Your task to perform on an android device: change alarm snooze length Image 0: 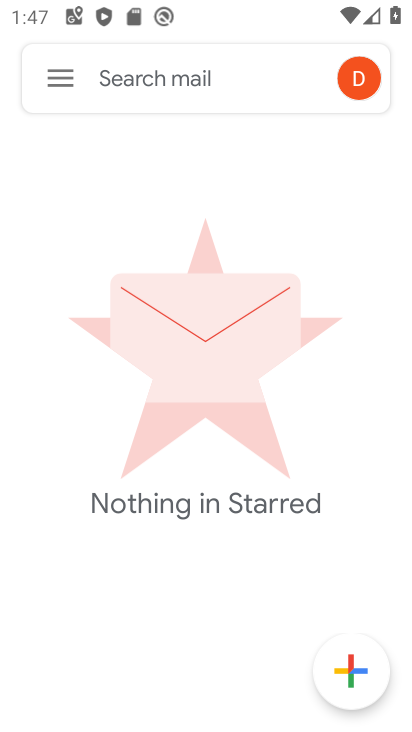
Step 0: press home button
Your task to perform on an android device: change alarm snooze length Image 1: 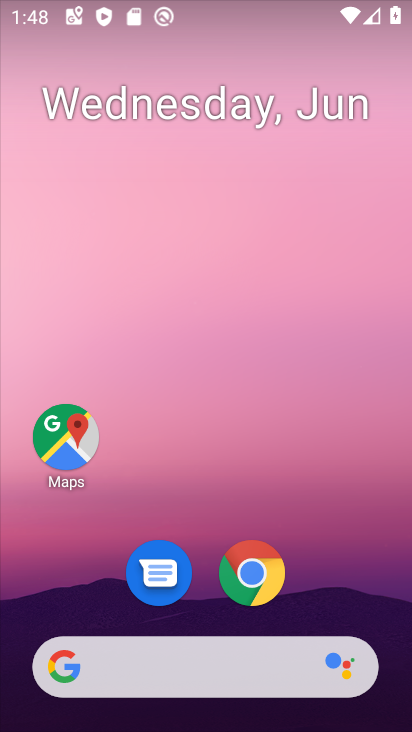
Step 1: drag from (375, 591) to (341, 187)
Your task to perform on an android device: change alarm snooze length Image 2: 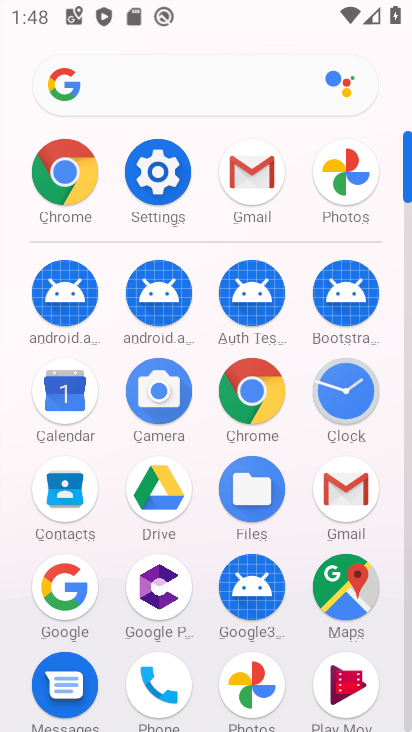
Step 2: click (354, 394)
Your task to perform on an android device: change alarm snooze length Image 3: 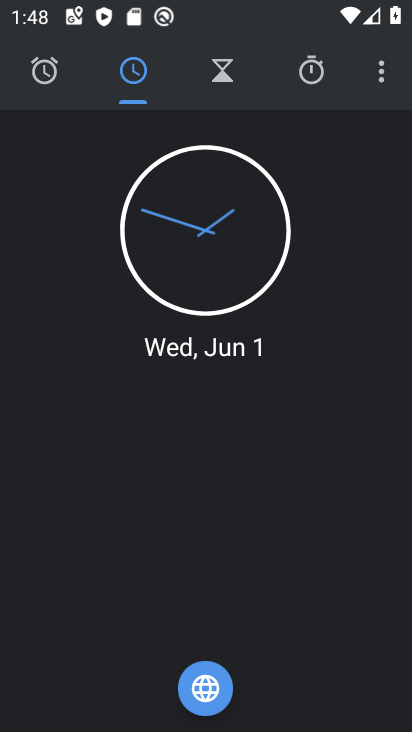
Step 3: click (393, 91)
Your task to perform on an android device: change alarm snooze length Image 4: 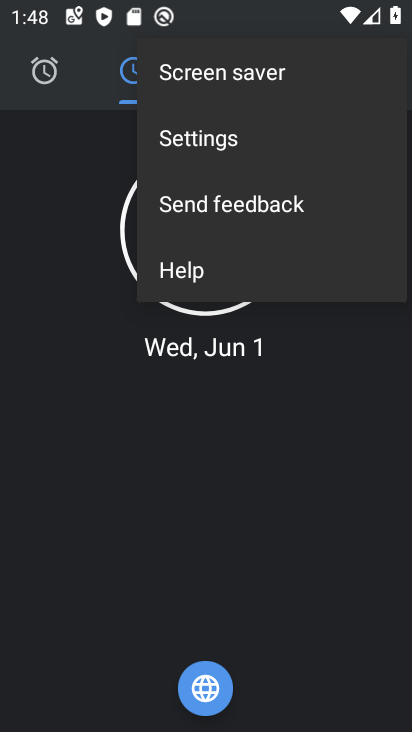
Step 4: click (333, 145)
Your task to perform on an android device: change alarm snooze length Image 5: 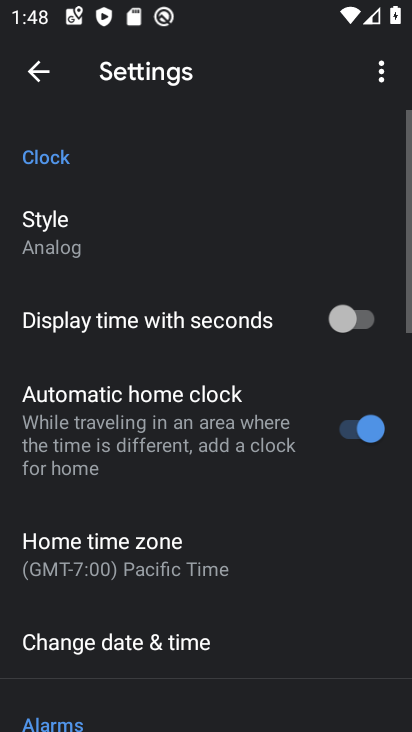
Step 5: drag from (212, 599) to (245, 279)
Your task to perform on an android device: change alarm snooze length Image 6: 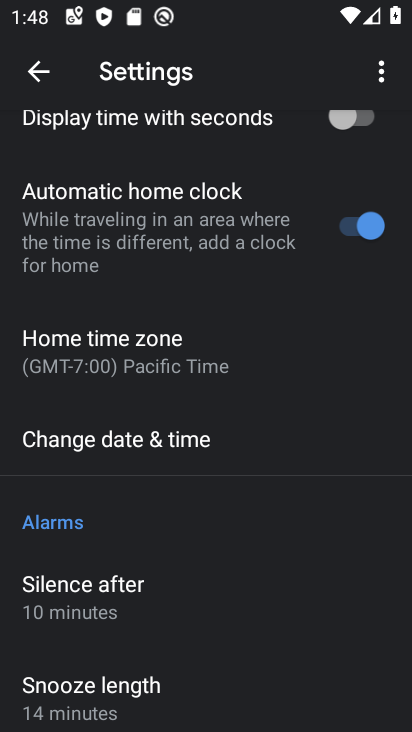
Step 6: drag from (218, 672) to (237, 399)
Your task to perform on an android device: change alarm snooze length Image 7: 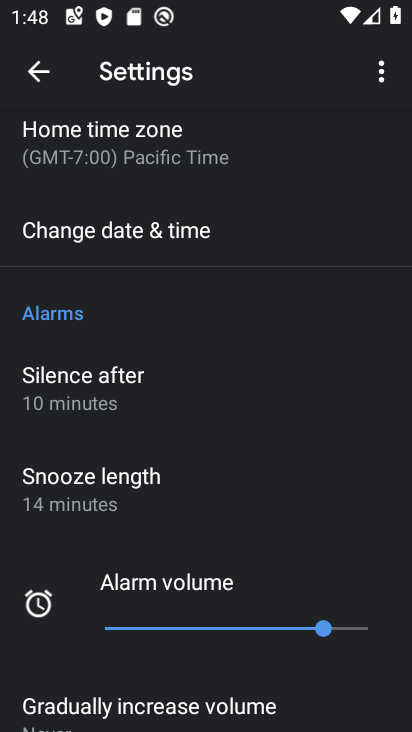
Step 7: click (194, 479)
Your task to perform on an android device: change alarm snooze length Image 8: 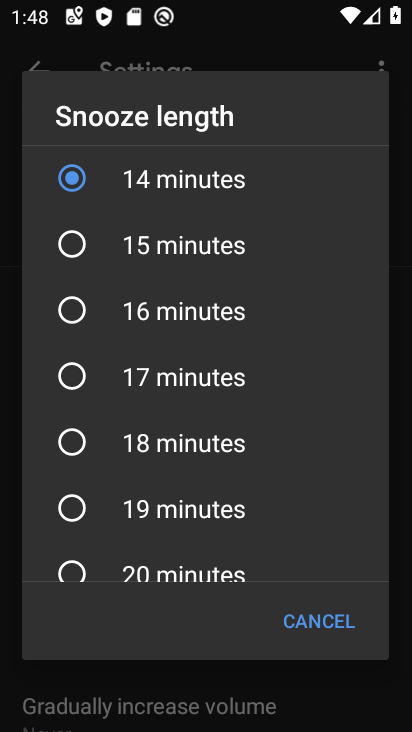
Step 8: click (198, 373)
Your task to perform on an android device: change alarm snooze length Image 9: 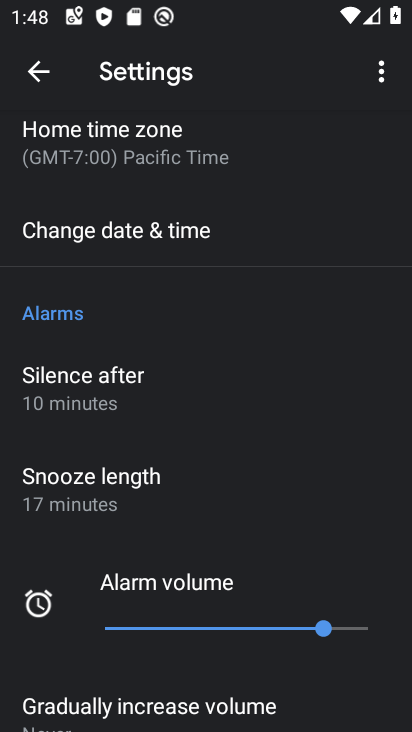
Step 9: task complete